Your task to perform on an android device: Look up the book "The Girl on the Train". Image 0: 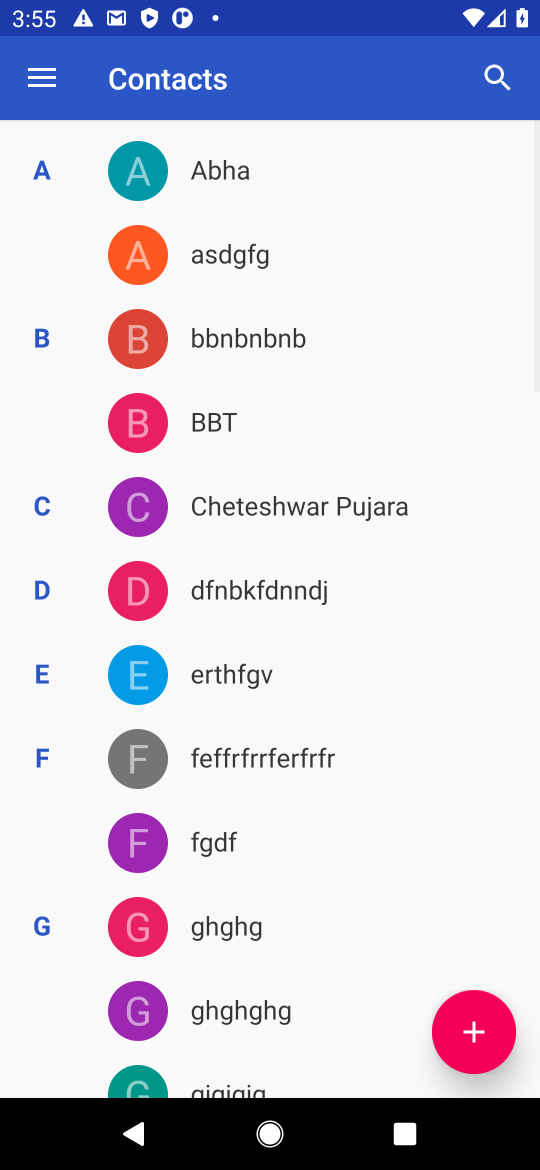
Step 0: press home button
Your task to perform on an android device: Look up the book "The Girl on the Train". Image 1: 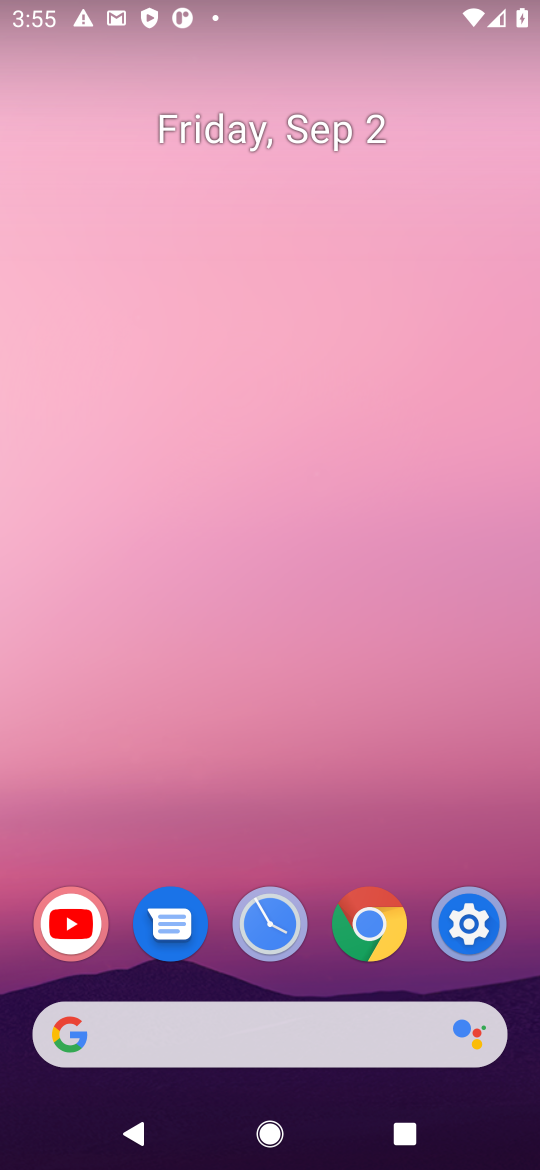
Step 1: click (366, 1027)
Your task to perform on an android device: Look up the book "The Girl on the Train". Image 2: 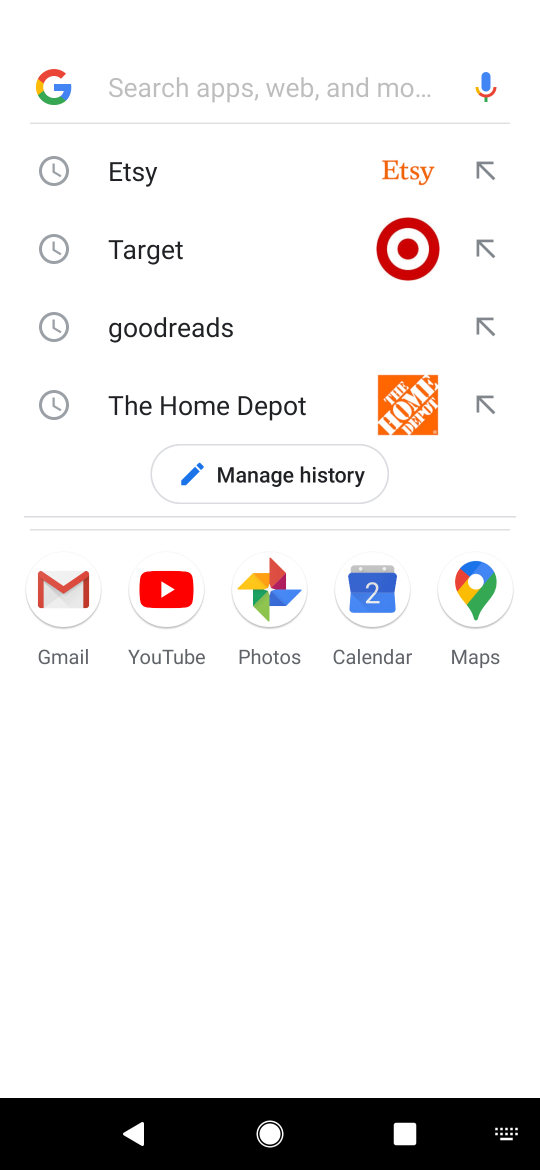
Step 2: press enter
Your task to perform on an android device: Look up the book "The Girl on the Train". Image 3: 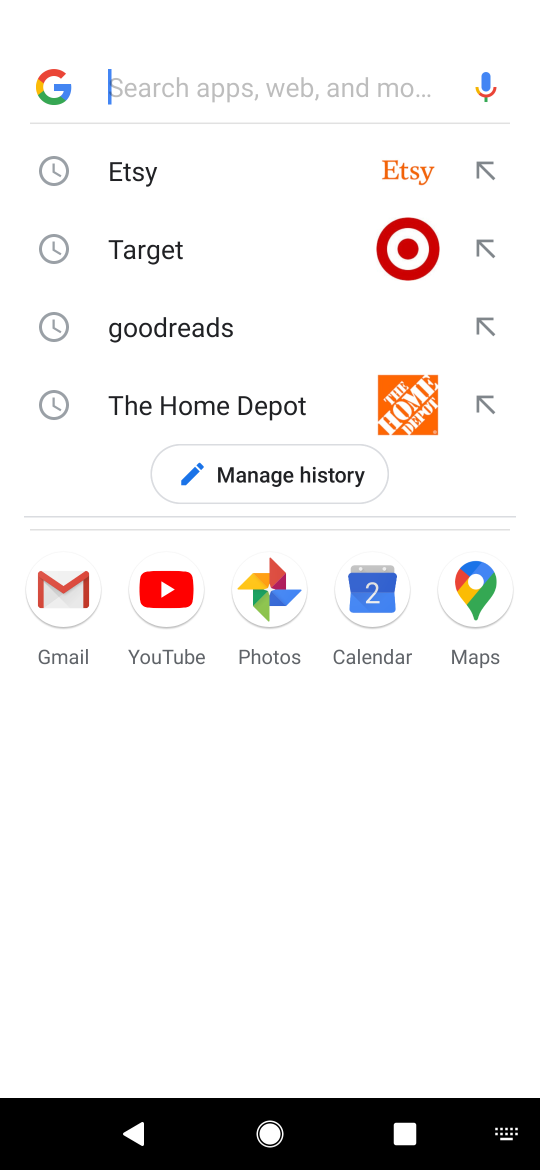
Step 3: type "The Girl on the Train"
Your task to perform on an android device: Look up the book "The Girl on the Train". Image 4: 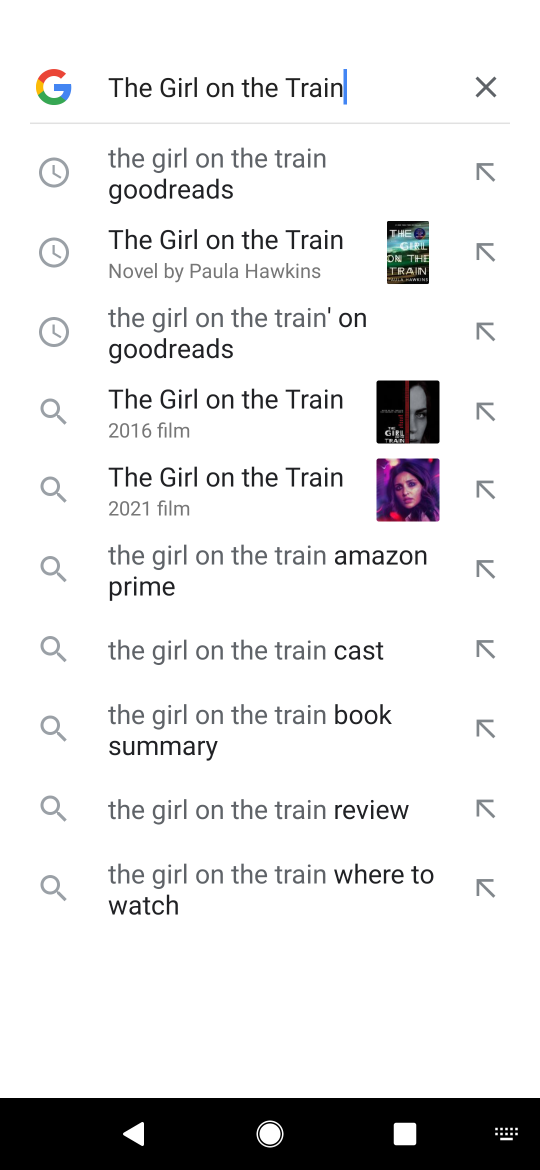
Step 4: click (198, 169)
Your task to perform on an android device: Look up the book "The Girl on the Train". Image 5: 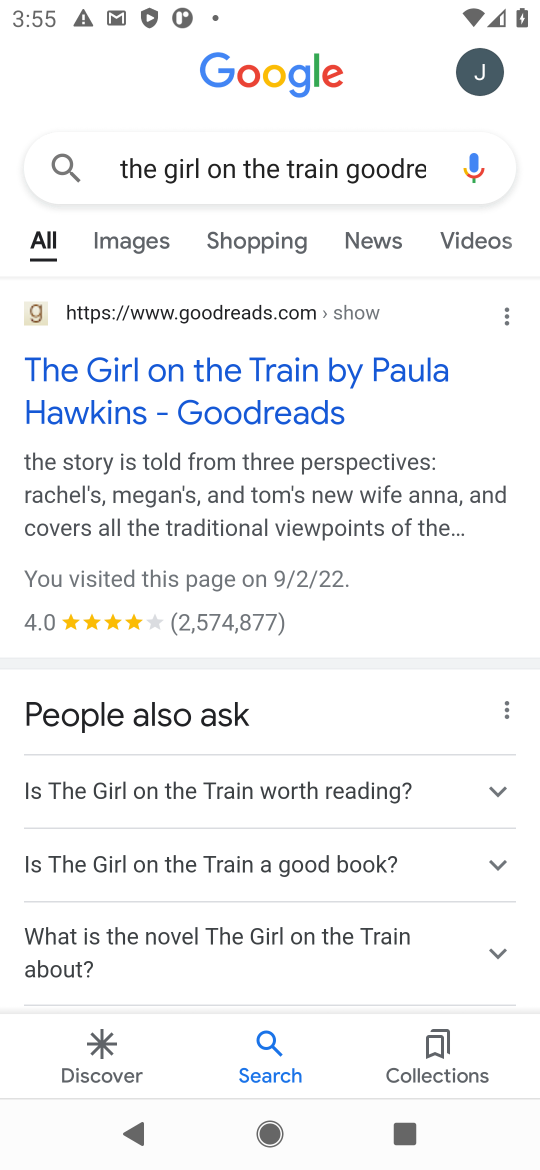
Step 5: click (260, 401)
Your task to perform on an android device: Look up the book "The Girl on the Train". Image 6: 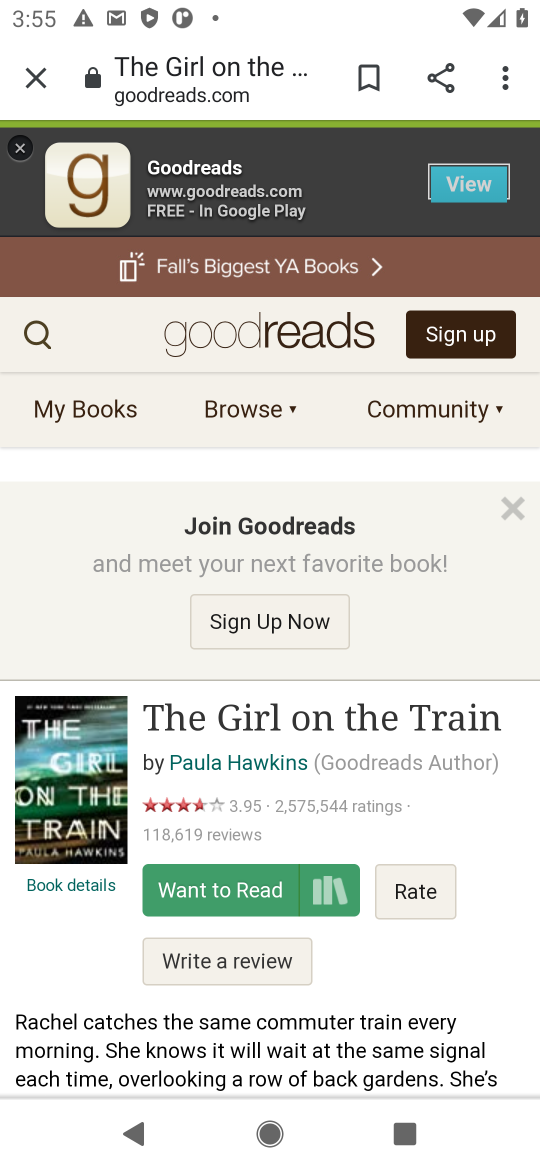
Step 6: task complete